Your task to perform on an android device: change the clock style Image 0: 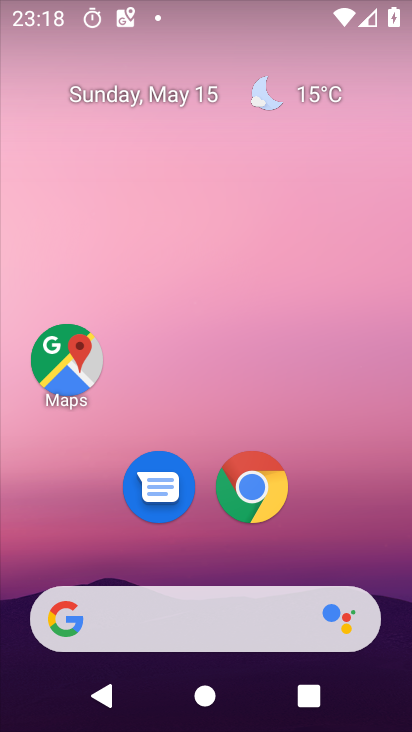
Step 0: click (339, 83)
Your task to perform on an android device: change the clock style Image 1: 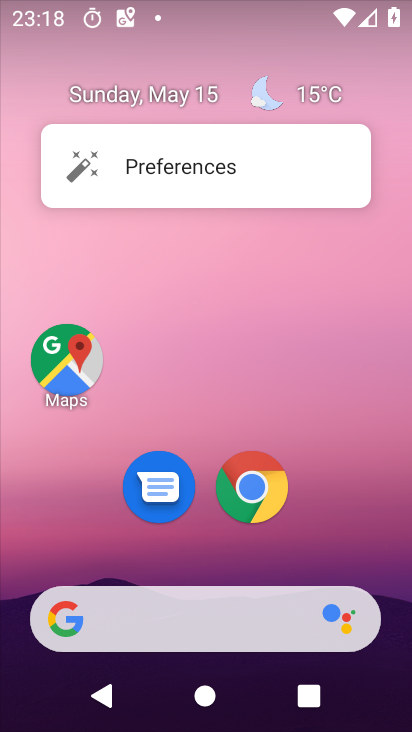
Step 1: drag from (380, 367) to (376, 206)
Your task to perform on an android device: change the clock style Image 2: 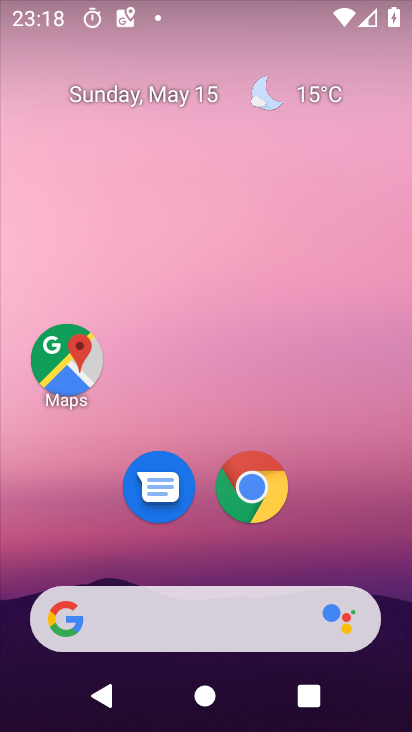
Step 2: drag from (404, 649) to (383, 283)
Your task to perform on an android device: change the clock style Image 3: 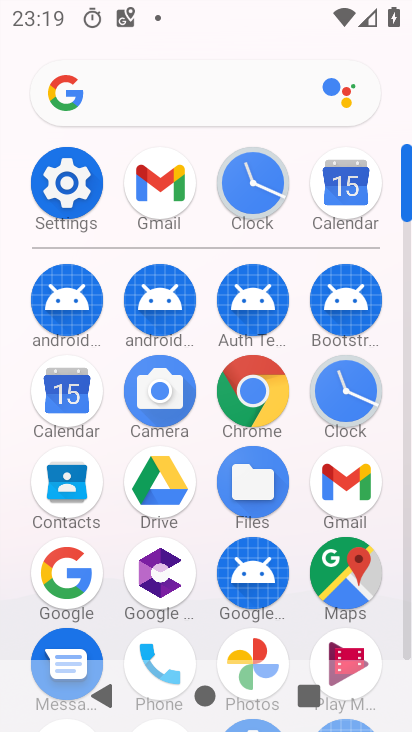
Step 3: click (70, 188)
Your task to perform on an android device: change the clock style Image 4: 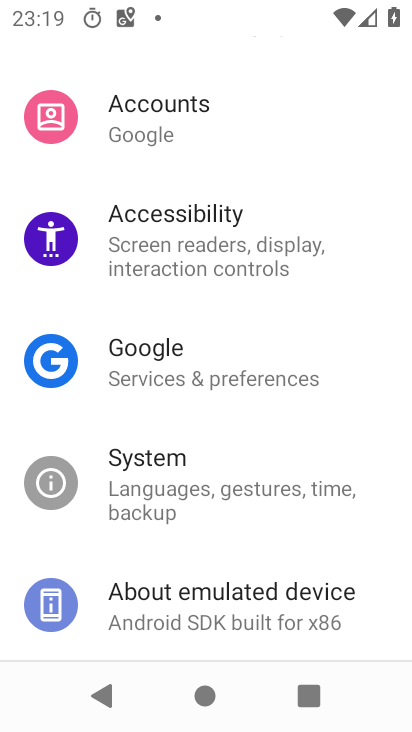
Step 4: press back button
Your task to perform on an android device: change the clock style Image 5: 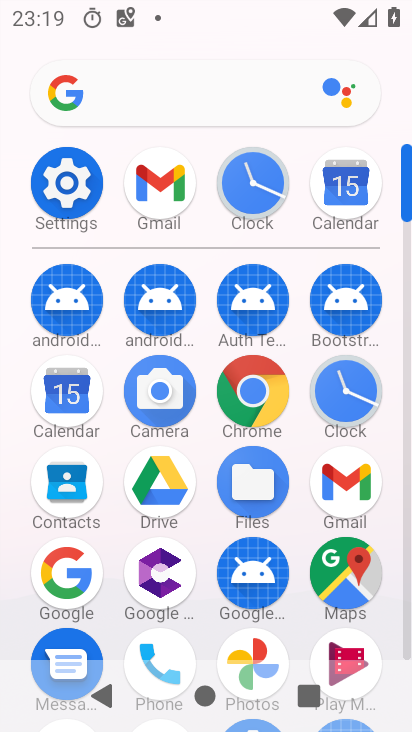
Step 5: press home button
Your task to perform on an android device: change the clock style Image 6: 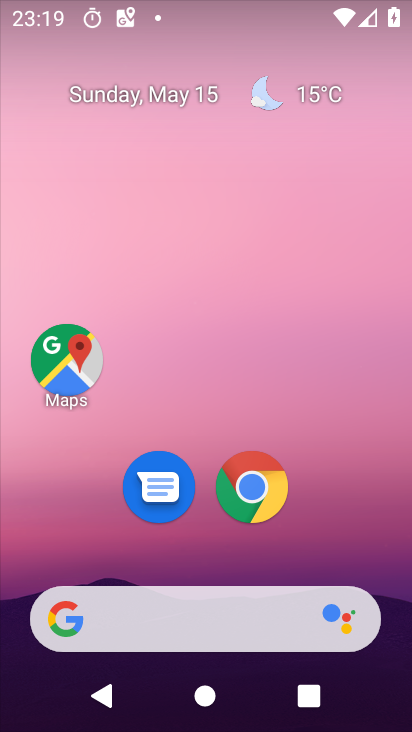
Step 6: drag from (371, 592) to (333, 326)
Your task to perform on an android device: change the clock style Image 7: 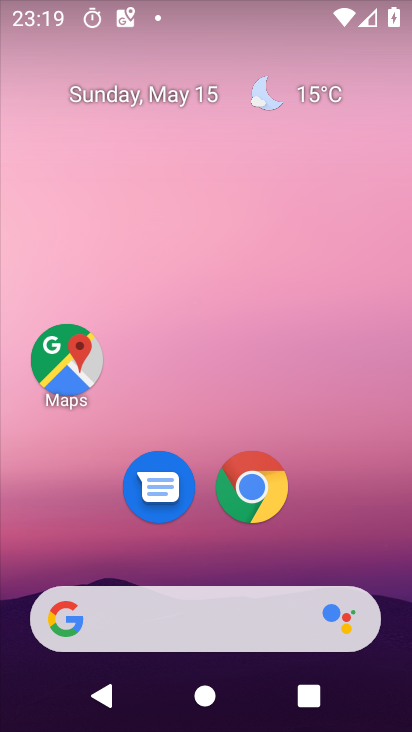
Step 7: drag from (366, 480) to (352, 341)
Your task to perform on an android device: change the clock style Image 8: 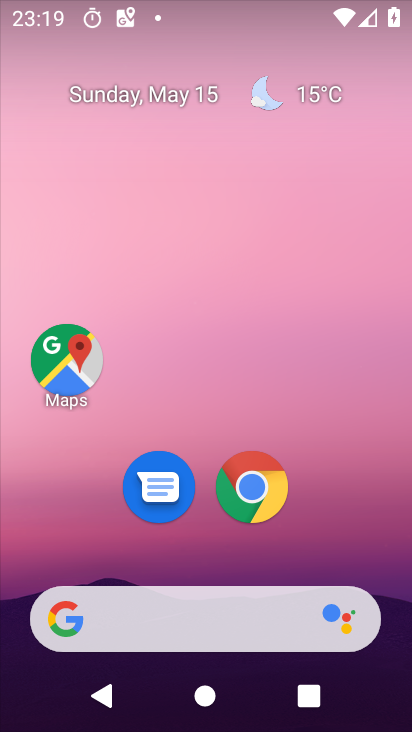
Step 8: drag from (397, 670) to (385, 175)
Your task to perform on an android device: change the clock style Image 9: 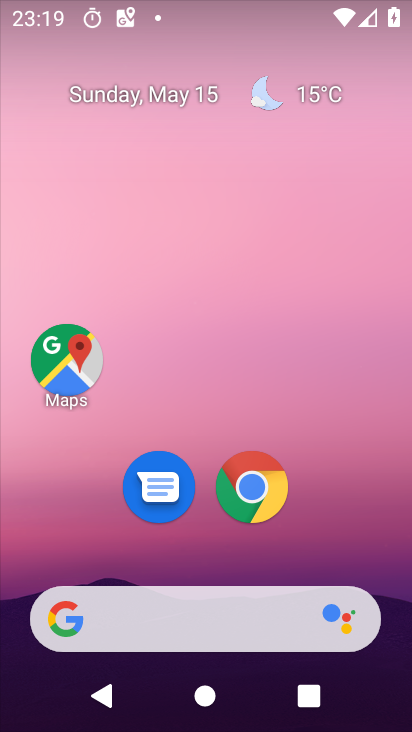
Step 9: drag from (385, 684) to (353, 314)
Your task to perform on an android device: change the clock style Image 10: 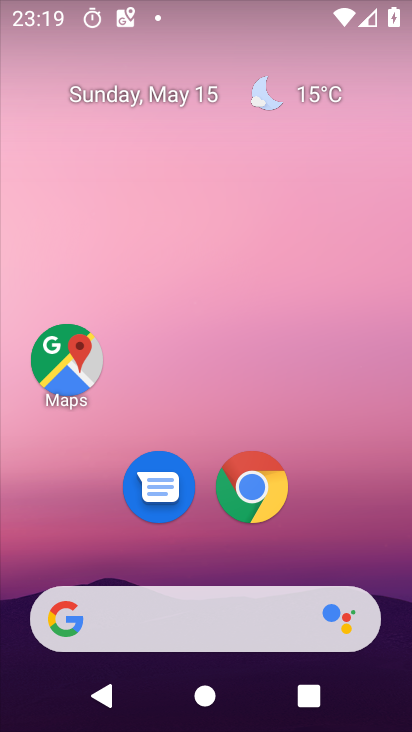
Step 10: drag from (394, 660) to (378, 254)
Your task to perform on an android device: change the clock style Image 11: 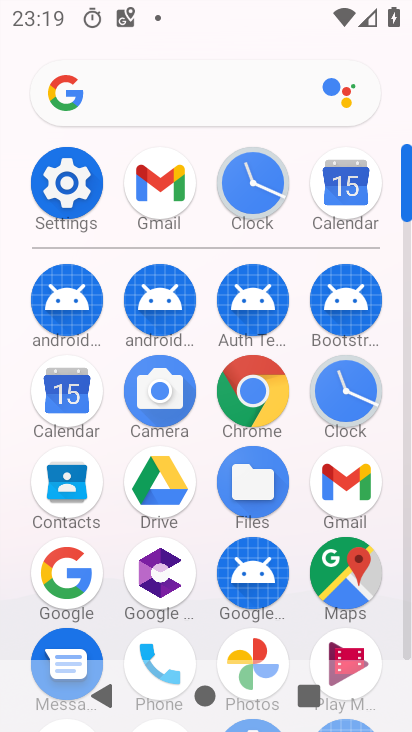
Step 11: click (331, 395)
Your task to perform on an android device: change the clock style Image 12: 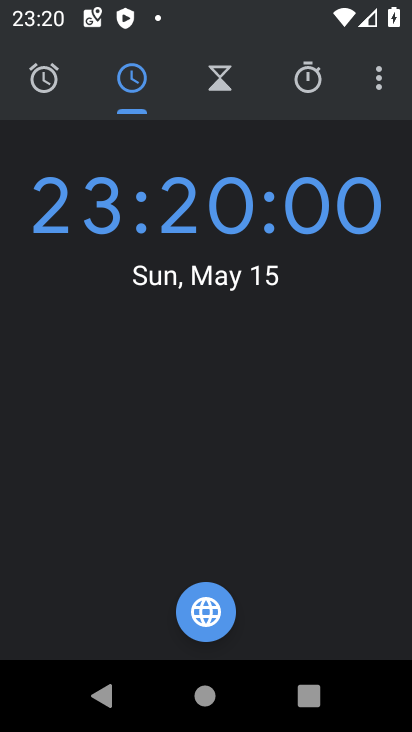
Step 12: click (379, 72)
Your task to perform on an android device: change the clock style Image 13: 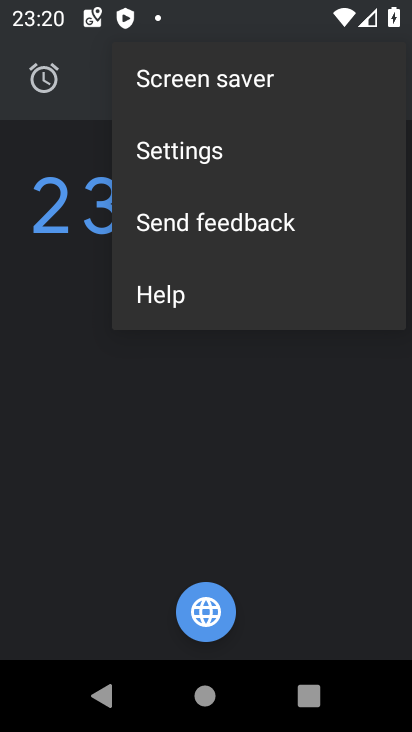
Step 13: click (171, 145)
Your task to perform on an android device: change the clock style Image 14: 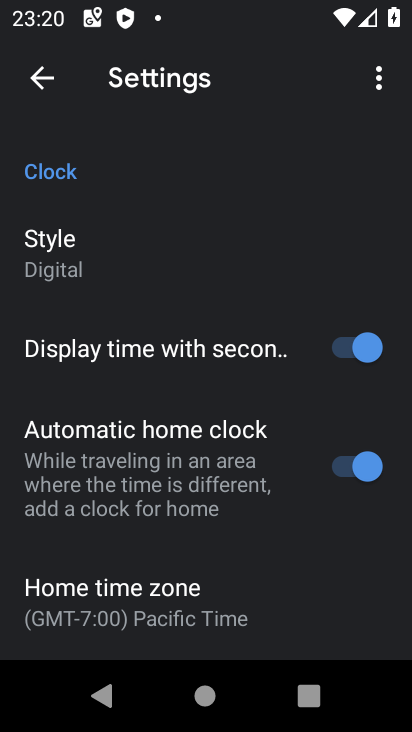
Step 14: click (51, 255)
Your task to perform on an android device: change the clock style Image 15: 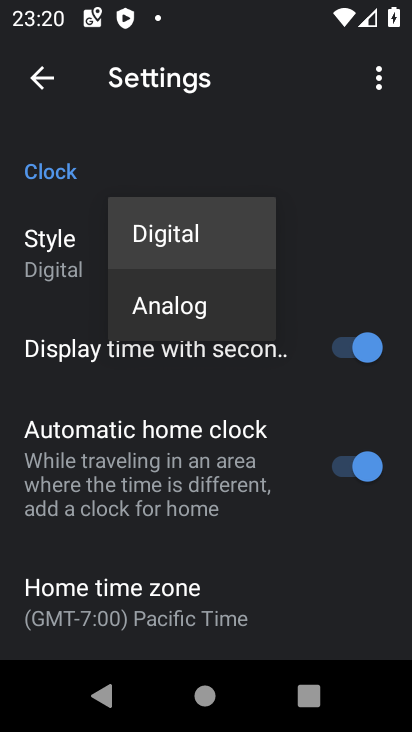
Step 15: click (51, 232)
Your task to perform on an android device: change the clock style Image 16: 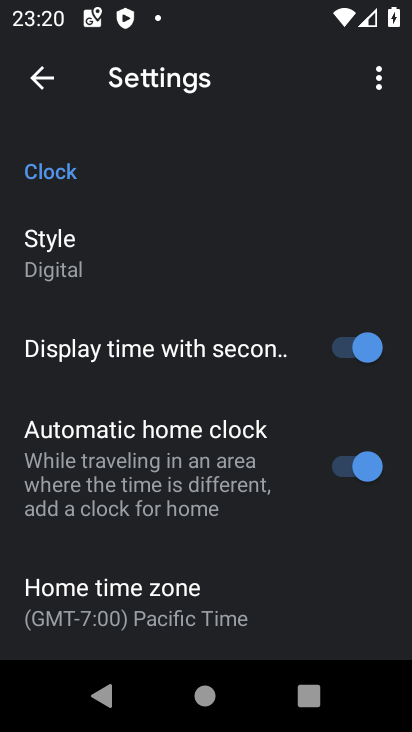
Step 16: click (193, 300)
Your task to perform on an android device: change the clock style Image 17: 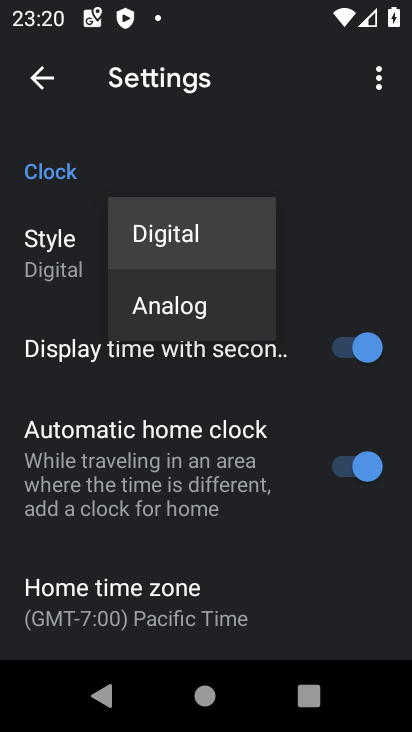
Step 17: task complete